Your task to perform on an android device: Open calendar and show me the first week of next month Image 0: 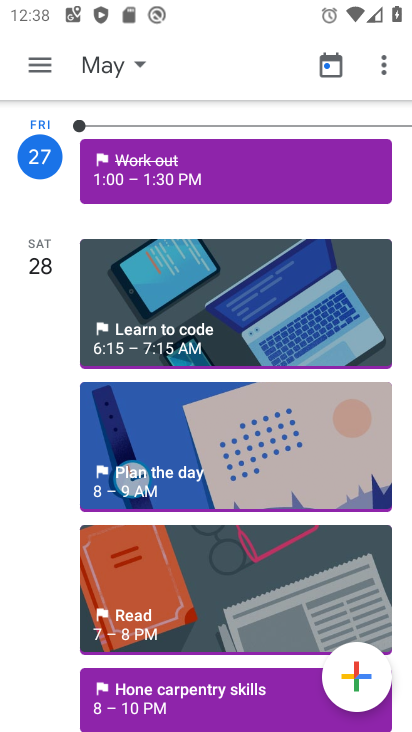
Step 0: press home button
Your task to perform on an android device: Open calendar and show me the first week of next month Image 1: 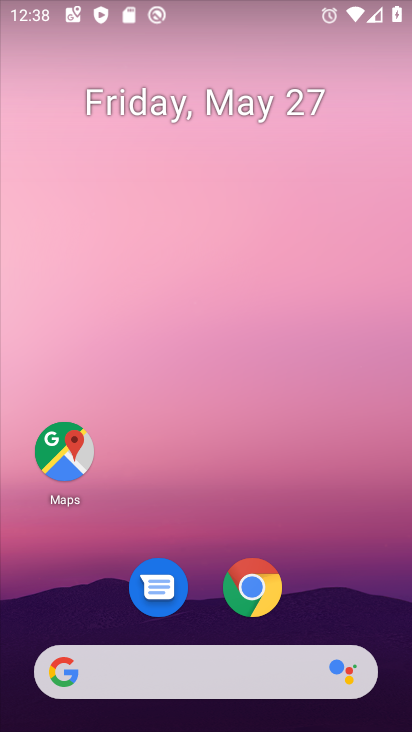
Step 1: drag from (255, 671) to (281, 156)
Your task to perform on an android device: Open calendar and show me the first week of next month Image 2: 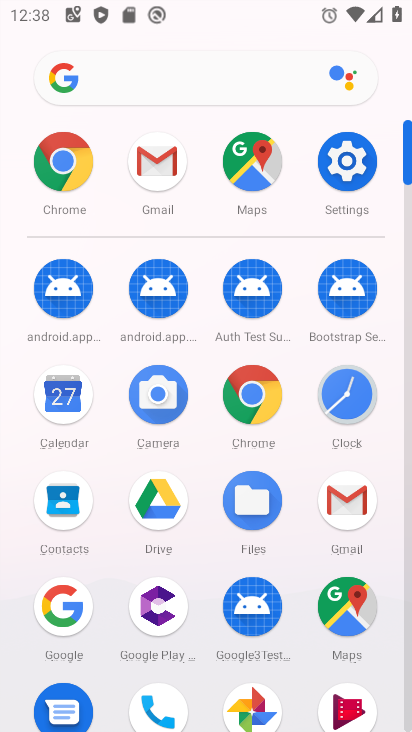
Step 2: click (45, 397)
Your task to perform on an android device: Open calendar and show me the first week of next month Image 3: 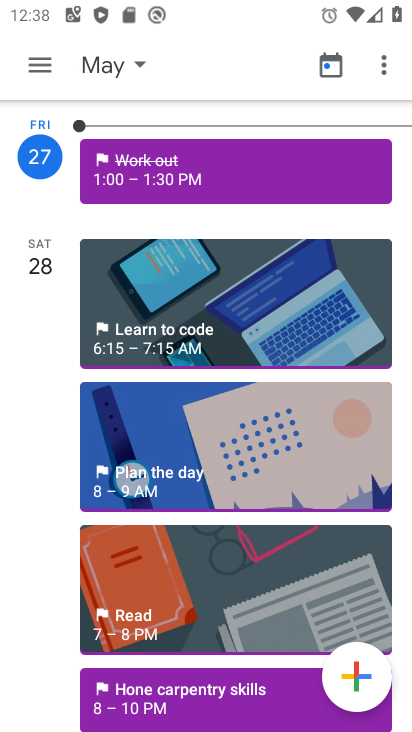
Step 3: click (25, 93)
Your task to perform on an android device: Open calendar and show me the first week of next month Image 4: 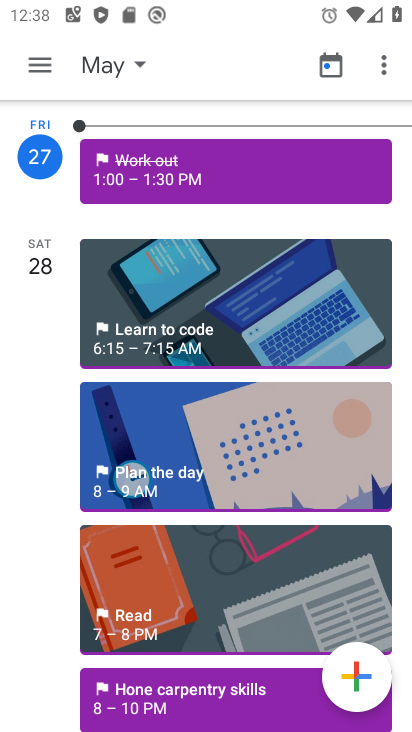
Step 4: click (34, 77)
Your task to perform on an android device: Open calendar and show me the first week of next month Image 5: 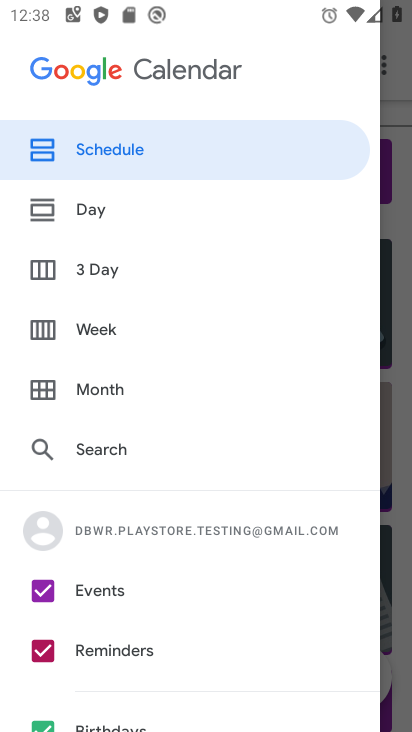
Step 5: click (114, 397)
Your task to perform on an android device: Open calendar and show me the first week of next month Image 6: 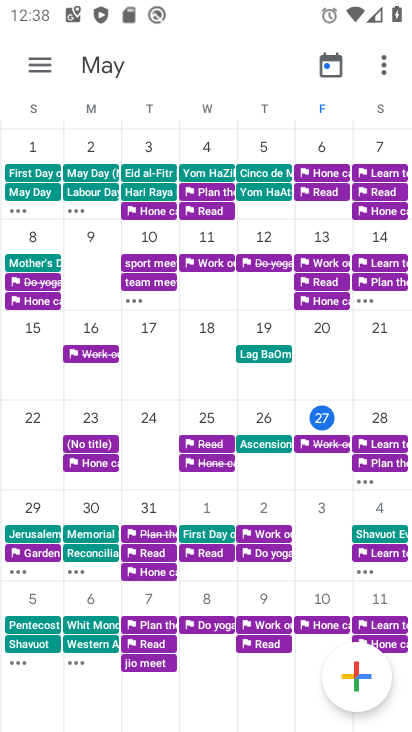
Step 6: drag from (329, 486) to (5, 638)
Your task to perform on an android device: Open calendar and show me the first week of next month Image 7: 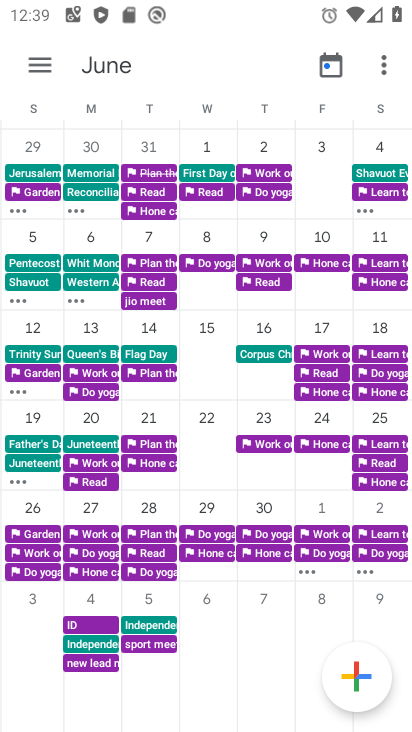
Step 7: click (204, 157)
Your task to perform on an android device: Open calendar and show me the first week of next month Image 8: 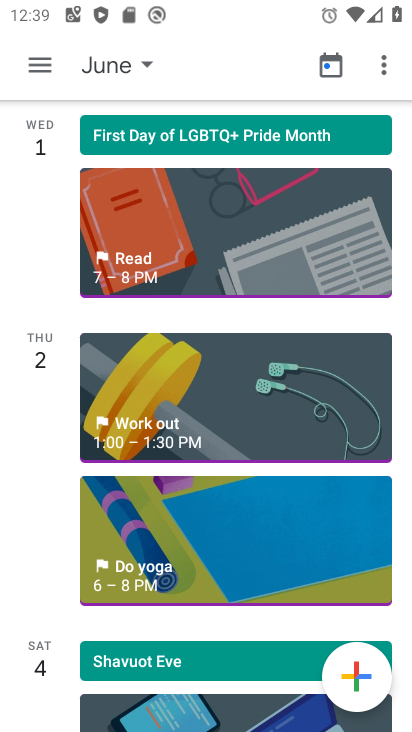
Step 8: task complete